Your task to perform on an android device: turn on the 24-hour format for clock Image 0: 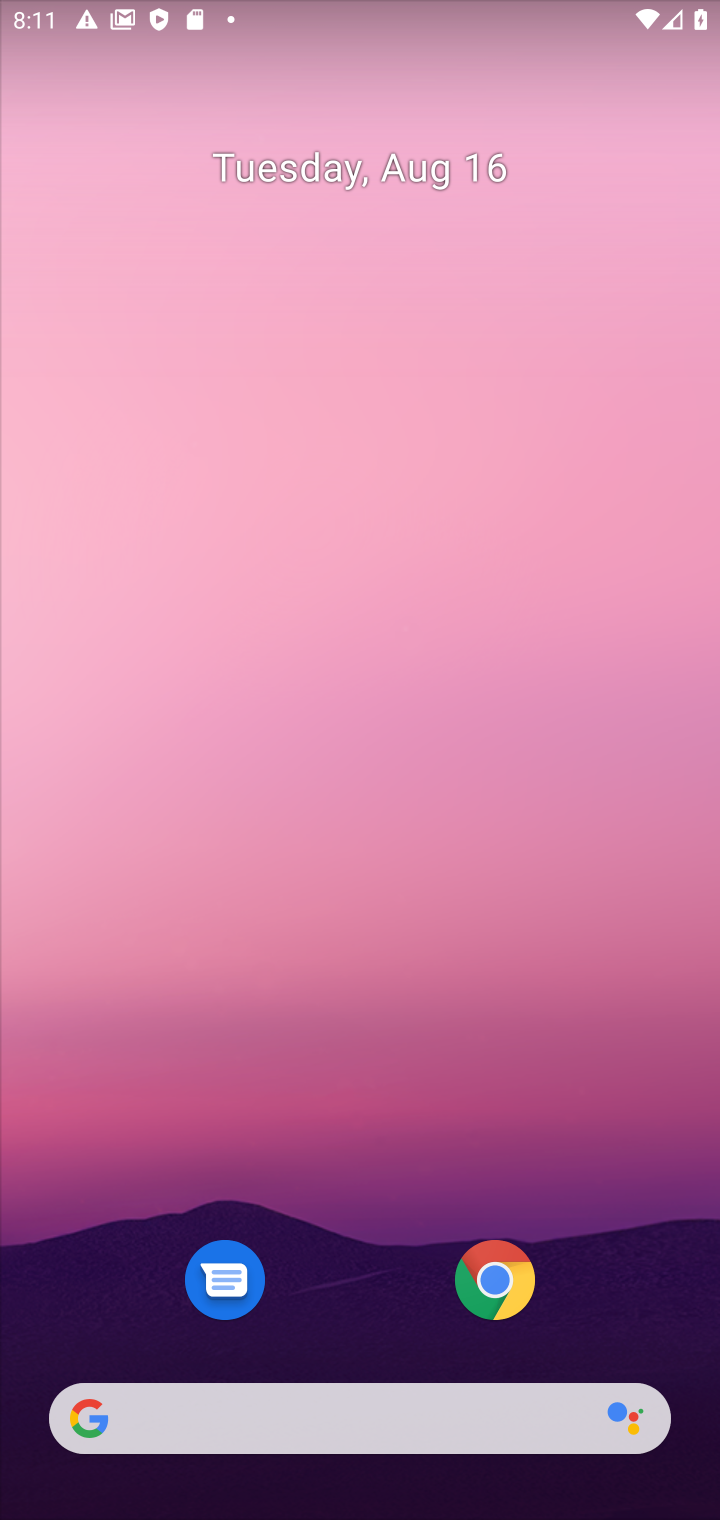
Step 0: drag from (322, 926) to (399, 11)
Your task to perform on an android device: turn on the 24-hour format for clock Image 1: 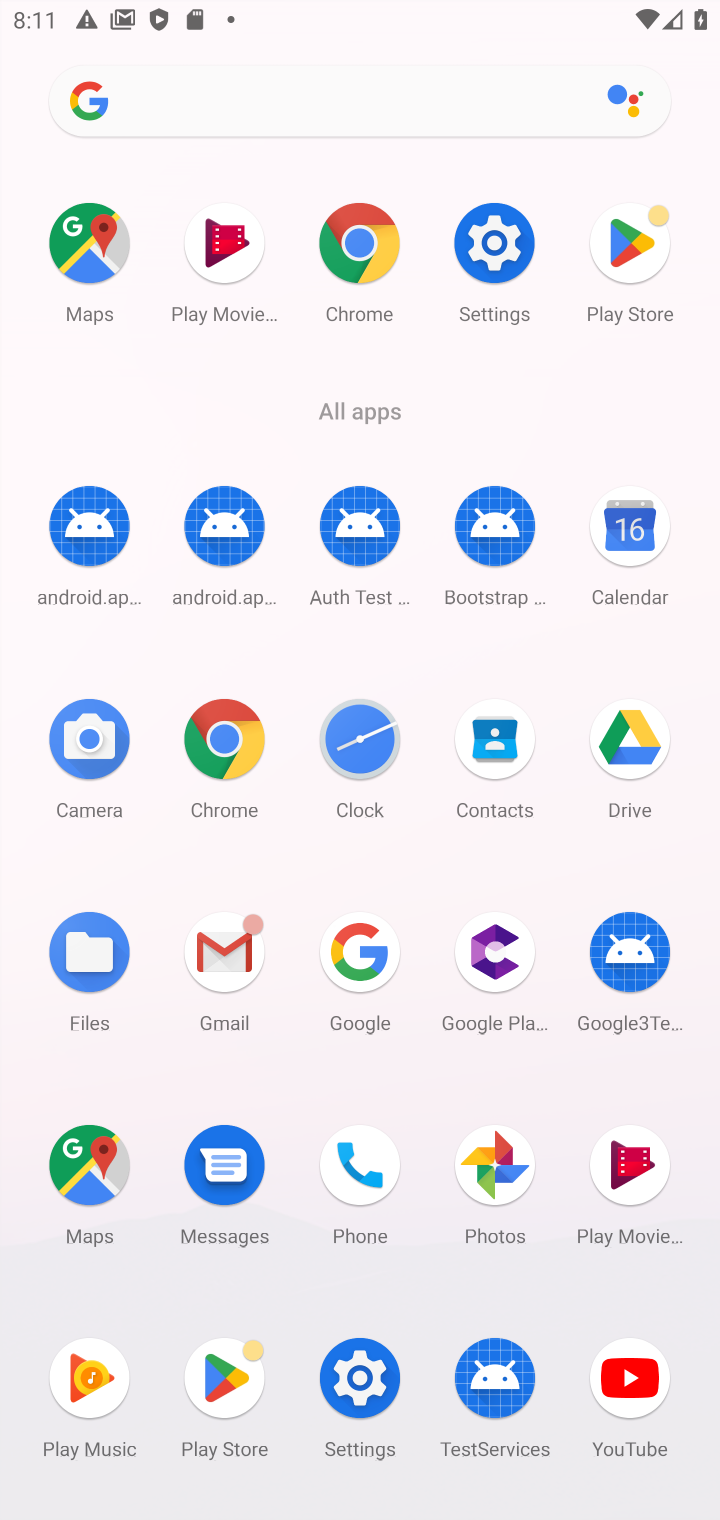
Step 1: drag from (357, 1322) to (386, 612)
Your task to perform on an android device: turn on the 24-hour format for clock Image 2: 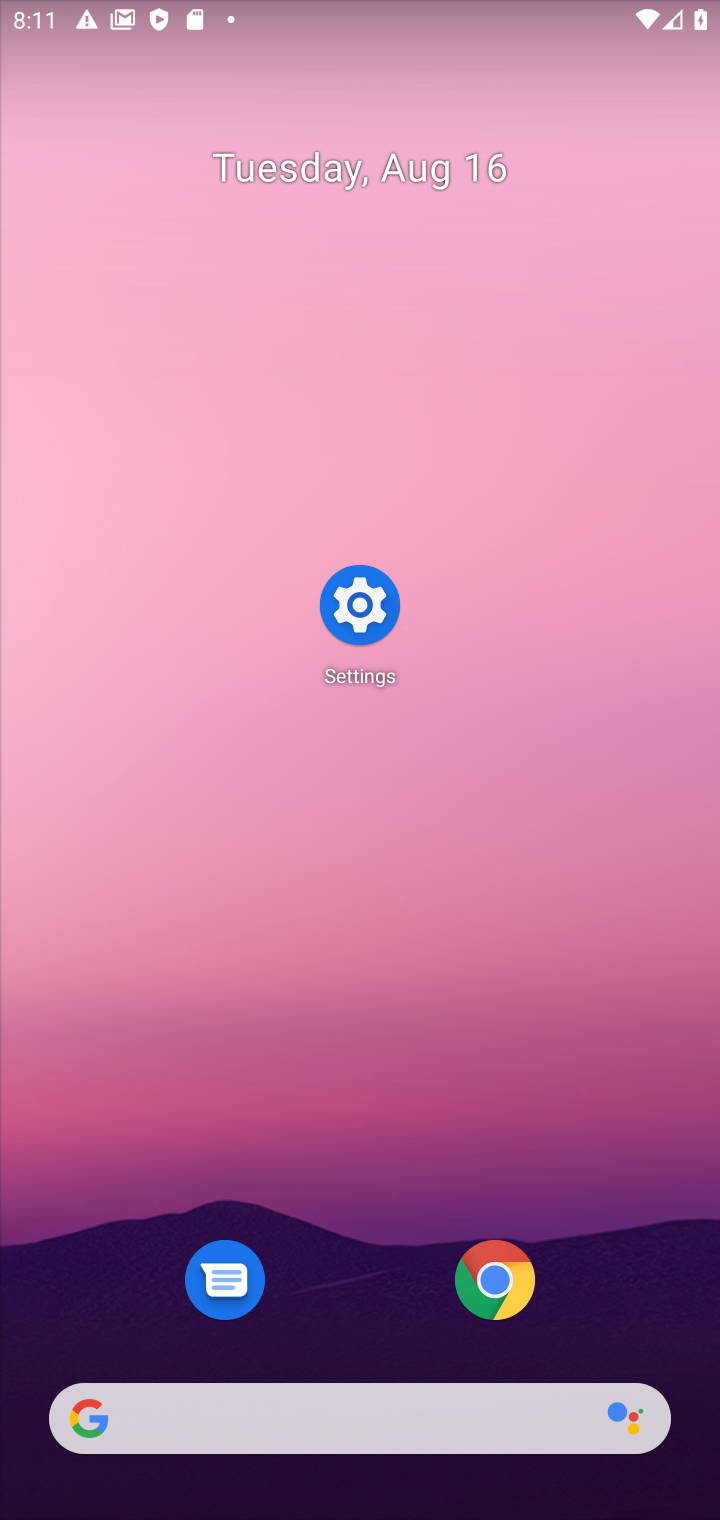
Step 2: click (372, 608)
Your task to perform on an android device: turn on the 24-hour format for clock Image 3: 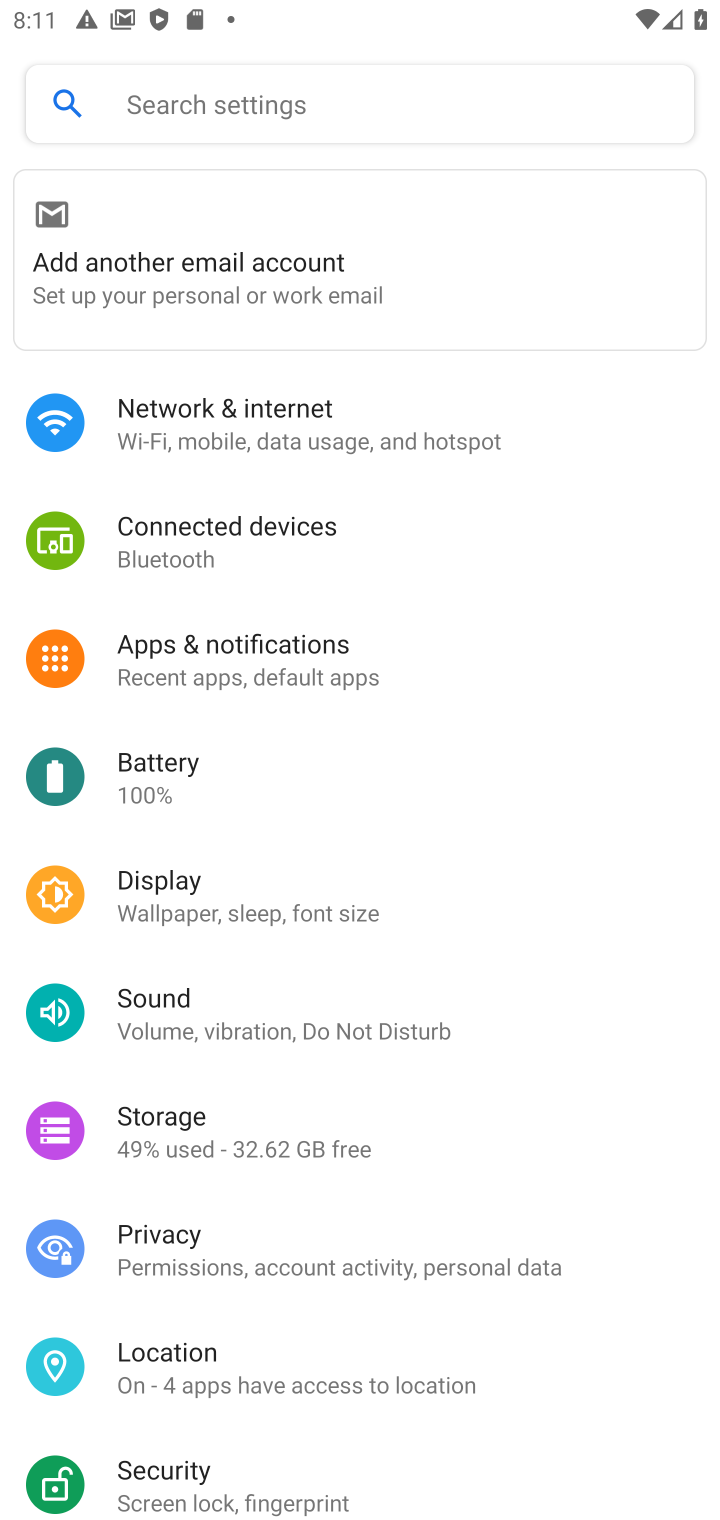
Step 3: click (374, 616)
Your task to perform on an android device: turn on the 24-hour format for clock Image 4: 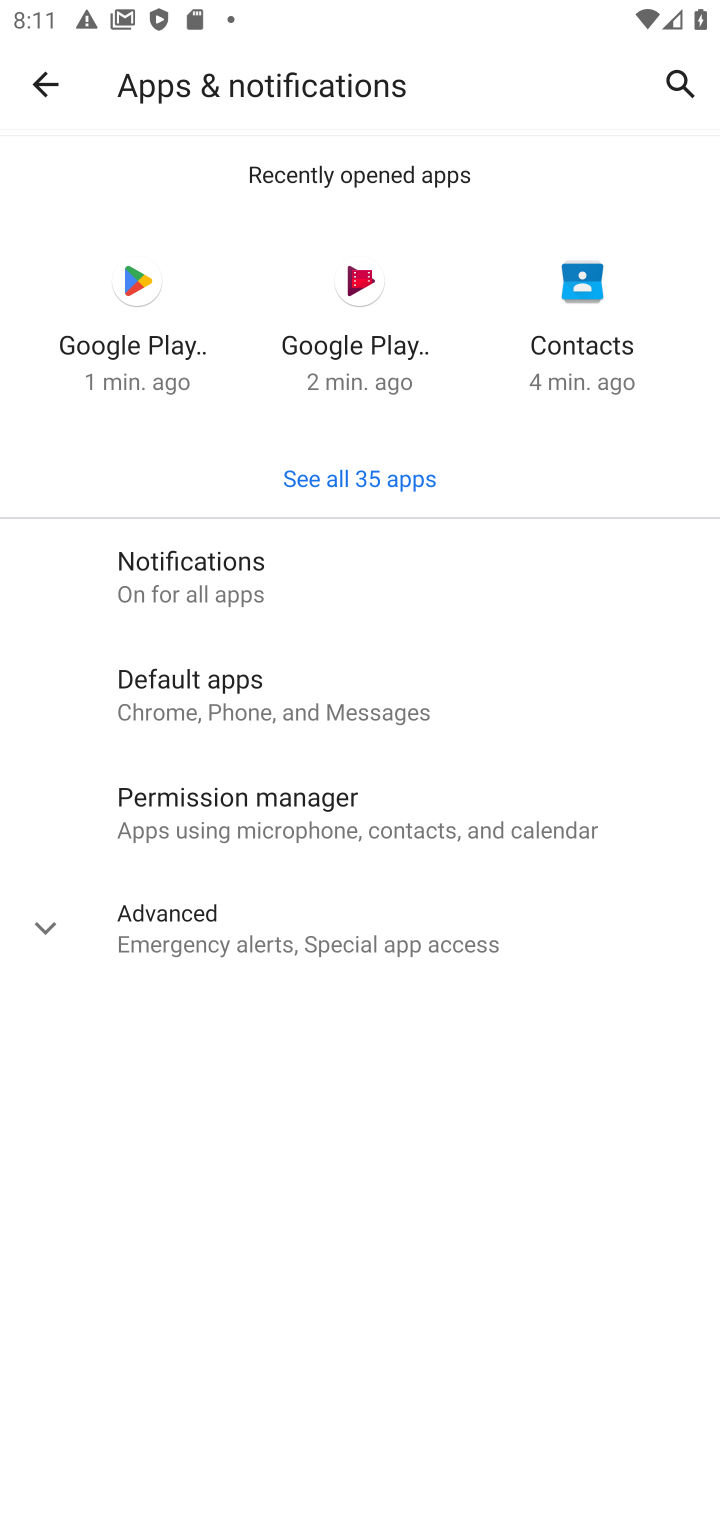
Step 4: click (37, 74)
Your task to perform on an android device: turn on the 24-hour format for clock Image 5: 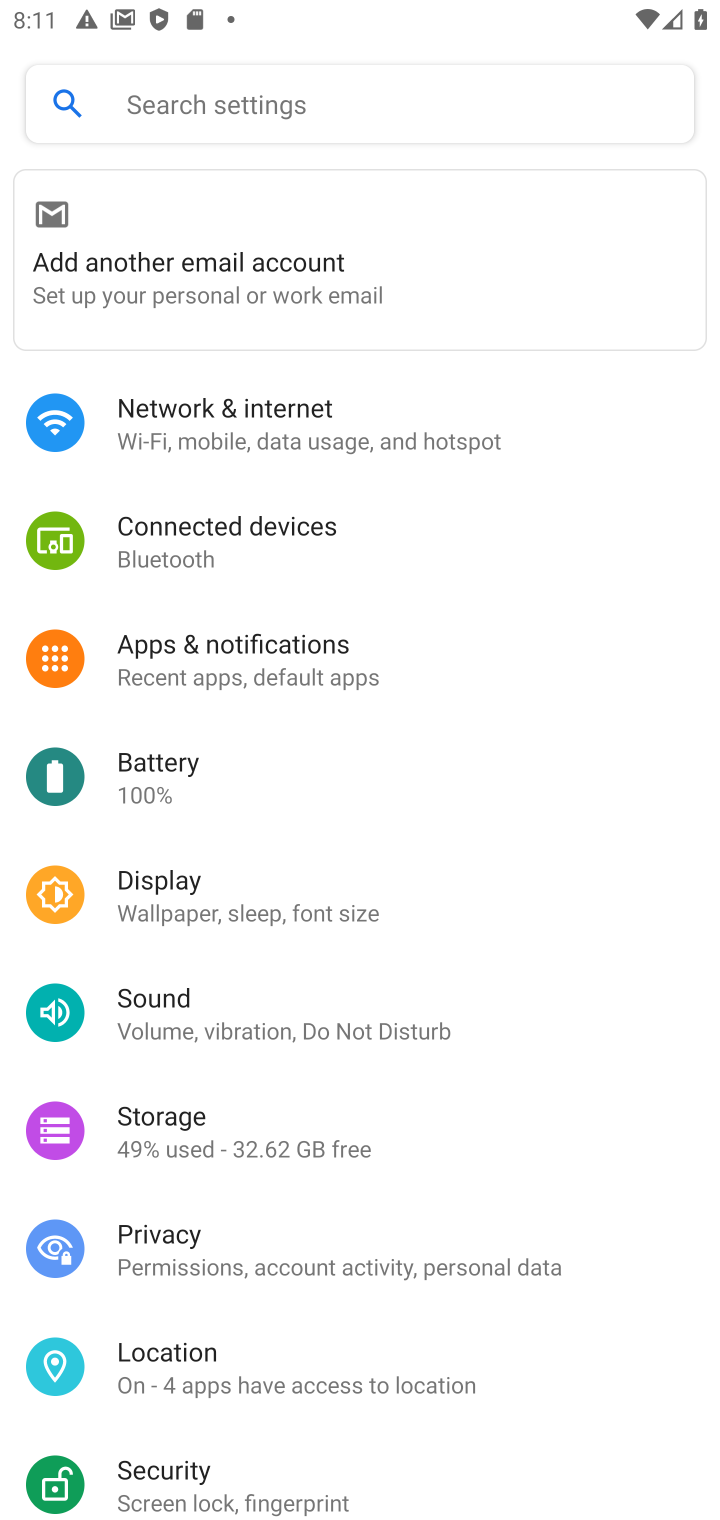
Step 5: drag from (388, 1243) to (438, 446)
Your task to perform on an android device: turn on the 24-hour format for clock Image 6: 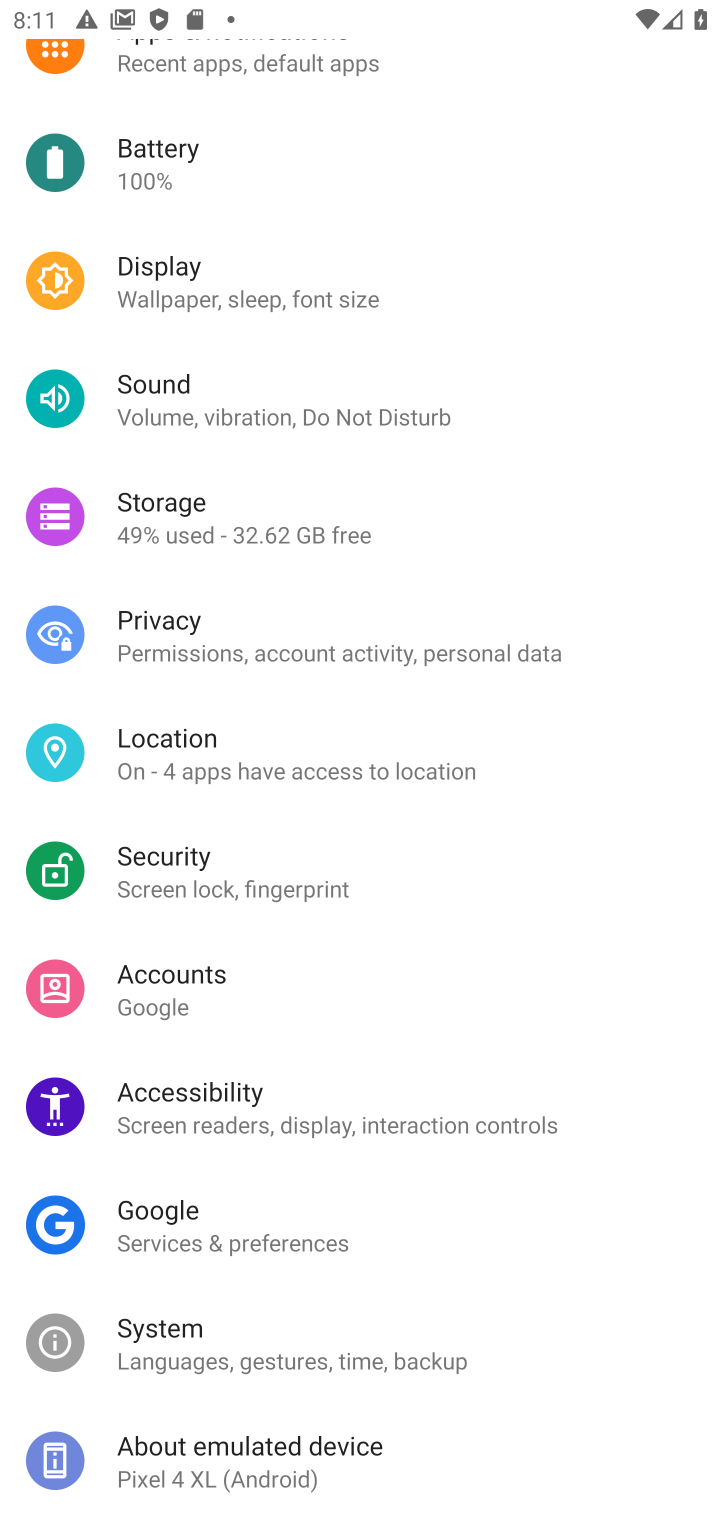
Step 6: drag from (242, 1396) to (287, 913)
Your task to perform on an android device: turn on the 24-hour format for clock Image 7: 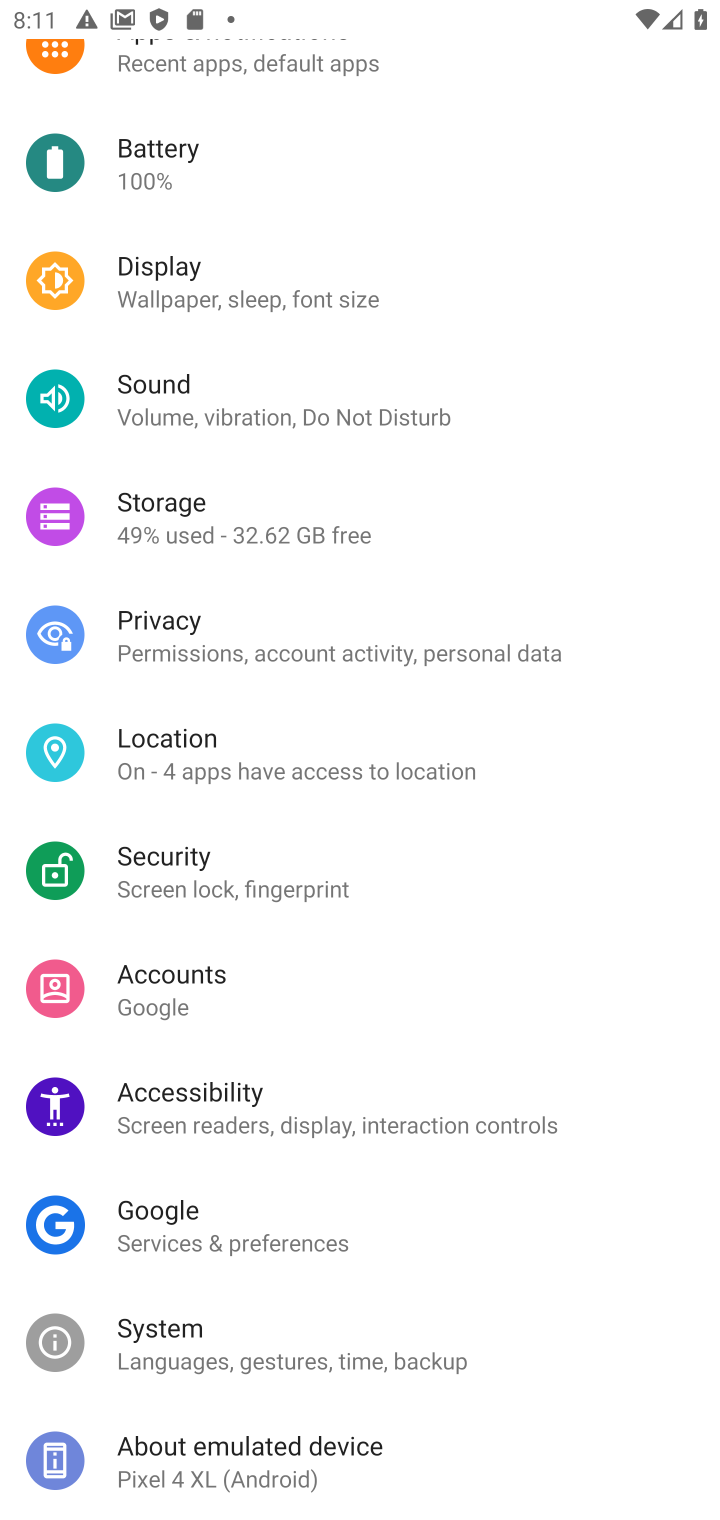
Step 7: click (167, 1343)
Your task to perform on an android device: turn on the 24-hour format for clock Image 8: 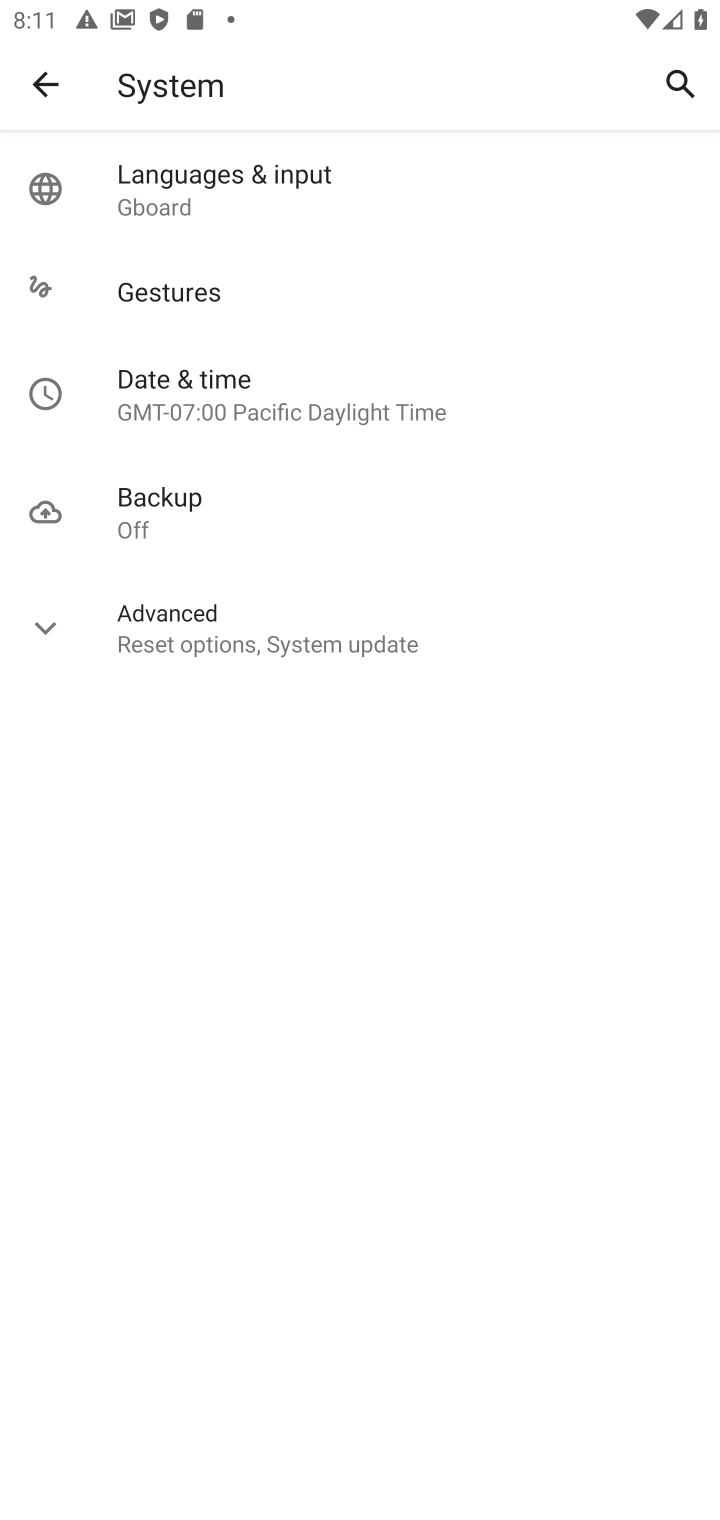
Step 8: click (223, 397)
Your task to perform on an android device: turn on the 24-hour format for clock Image 9: 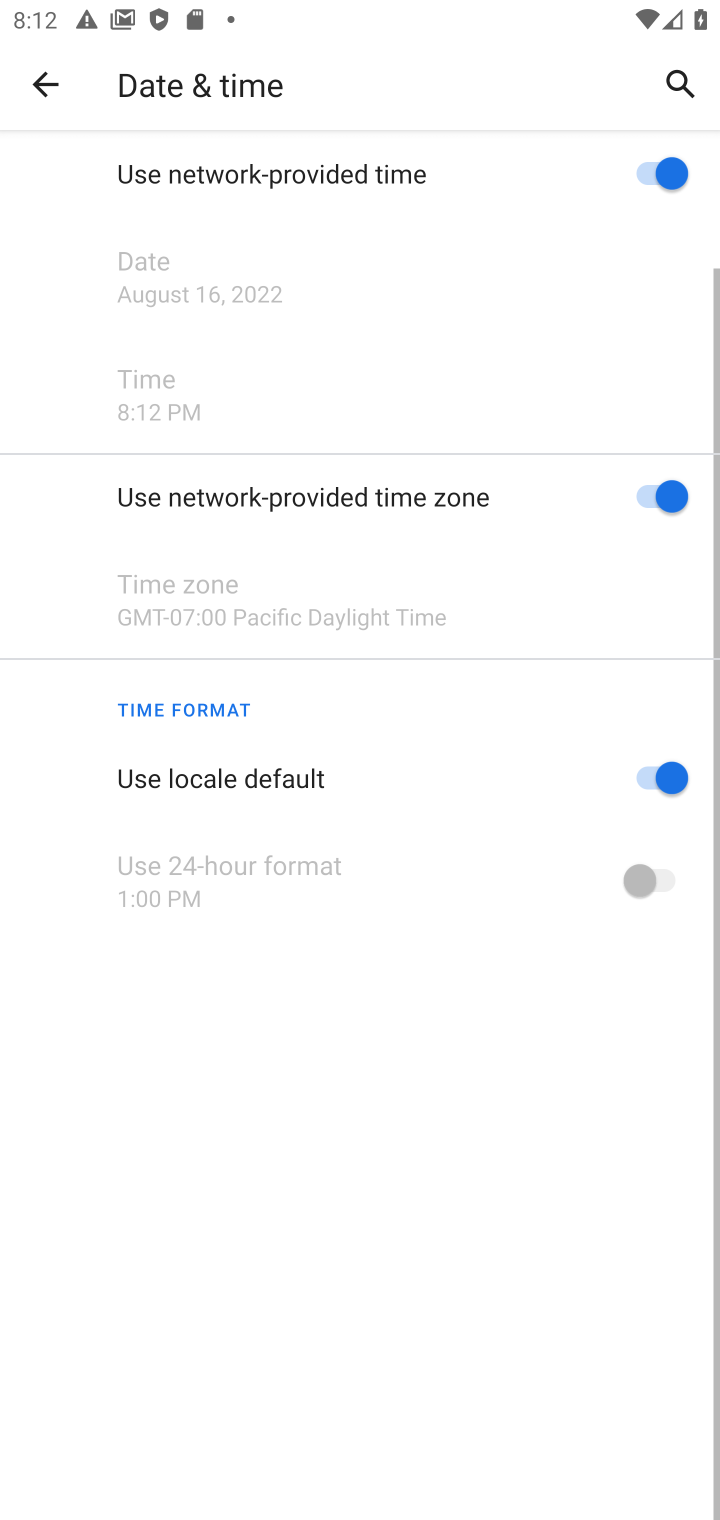
Step 9: click (621, 784)
Your task to perform on an android device: turn on the 24-hour format for clock Image 10: 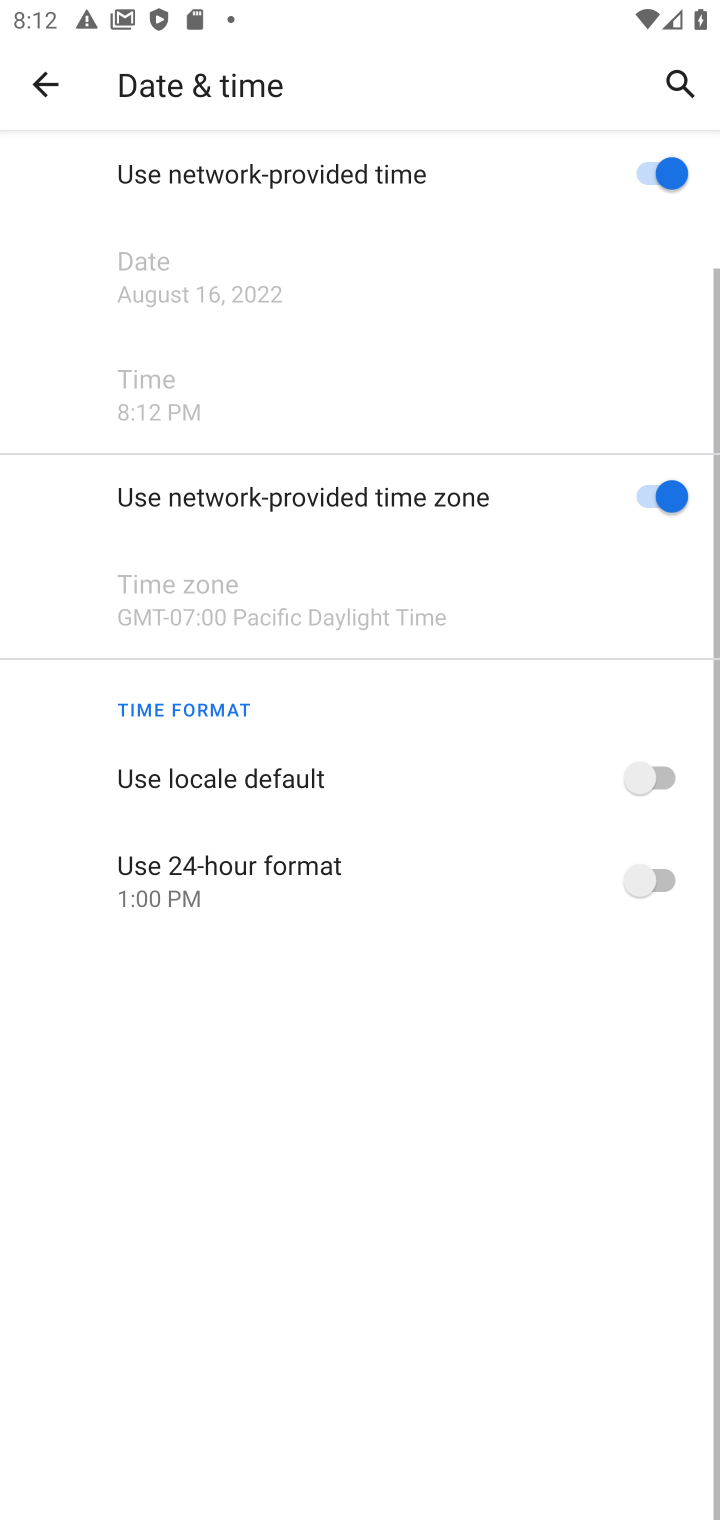
Step 10: click (683, 870)
Your task to perform on an android device: turn on the 24-hour format for clock Image 11: 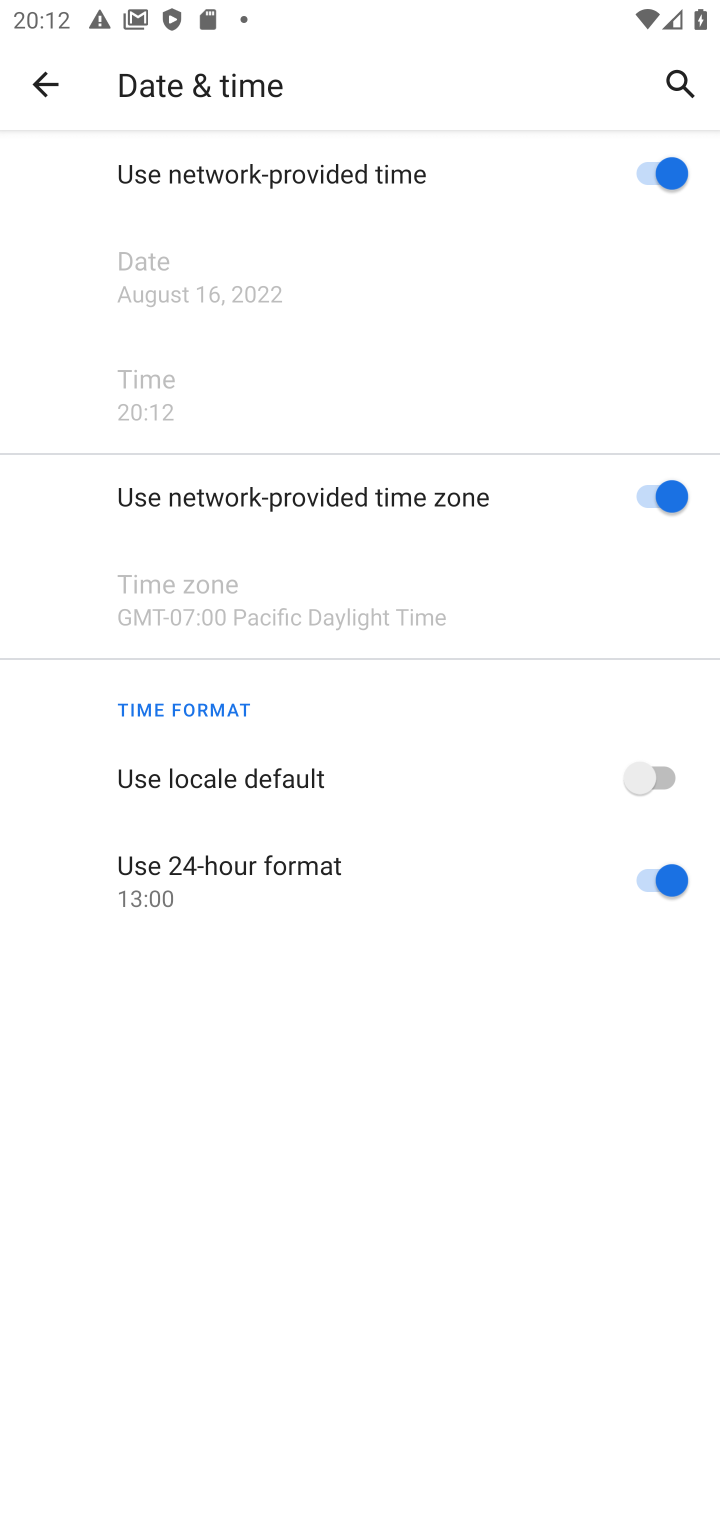
Step 11: task complete